Your task to perform on an android device: turn off notifications in google photos Image 0: 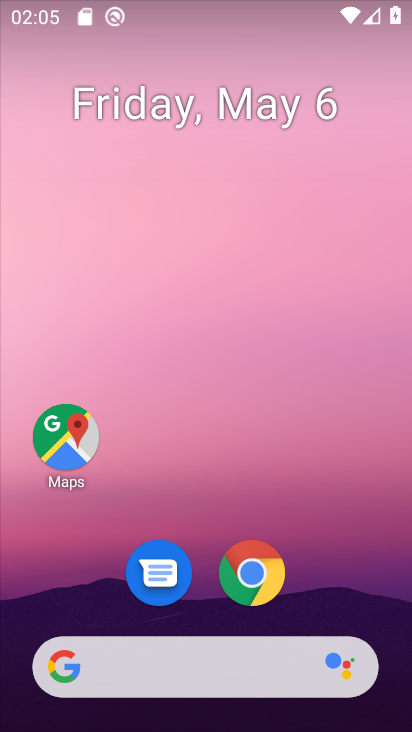
Step 0: click (316, 275)
Your task to perform on an android device: turn off notifications in google photos Image 1: 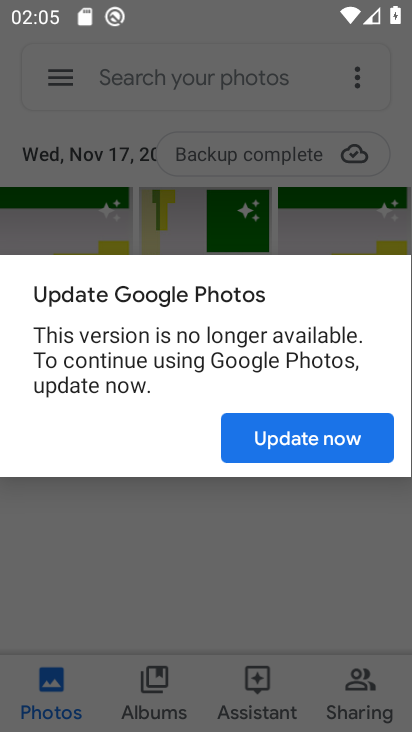
Step 1: press home button
Your task to perform on an android device: turn off notifications in google photos Image 2: 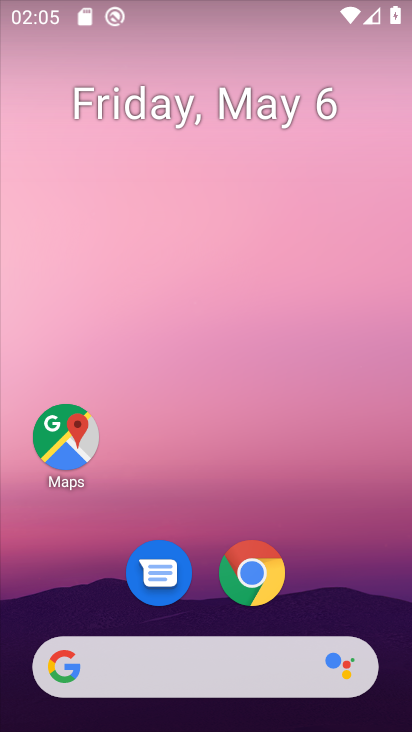
Step 2: drag from (313, 611) to (379, 243)
Your task to perform on an android device: turn off notifications in google photos Image 3: 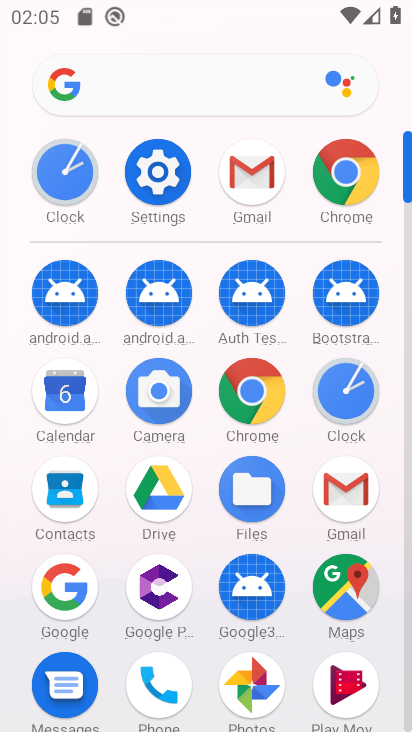
Step 3: click (254, 682)
Your task to perform on an android device: turn off notifications in google photos Image 4: 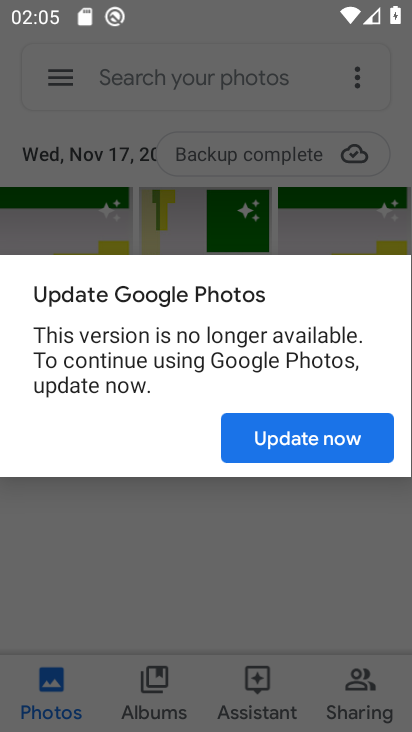
Step 4: click (309, 423)
Your task to perform on an android device: turn off notifications in google photos Image 5: 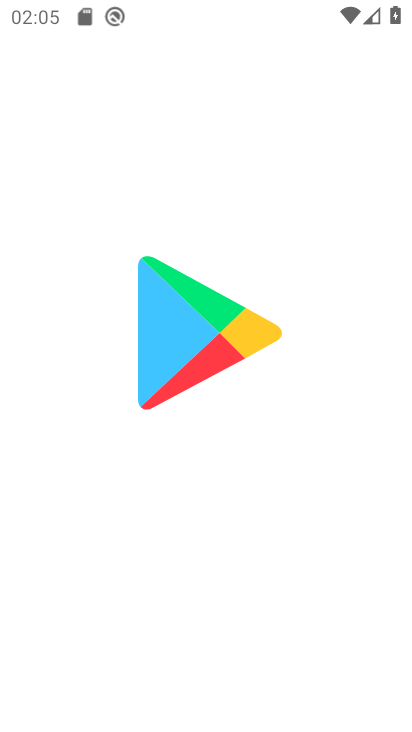
Step 5: press back button
Your task to perform on an android device: turn off notifications in google photos Image 6: 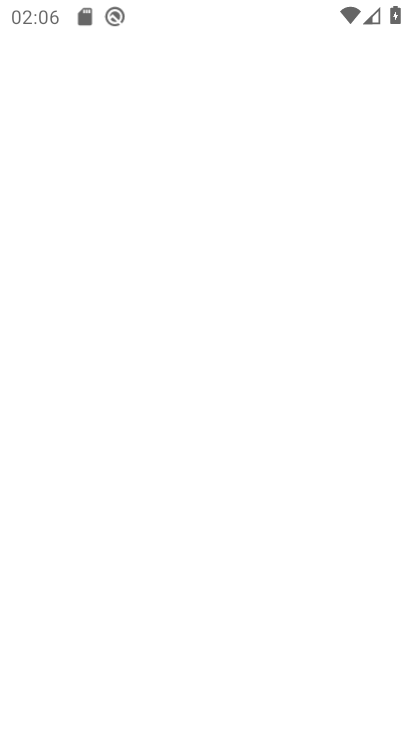
Step 6: press back button
Your task to perform on an android device: turn off notifications in google photos Image 7: 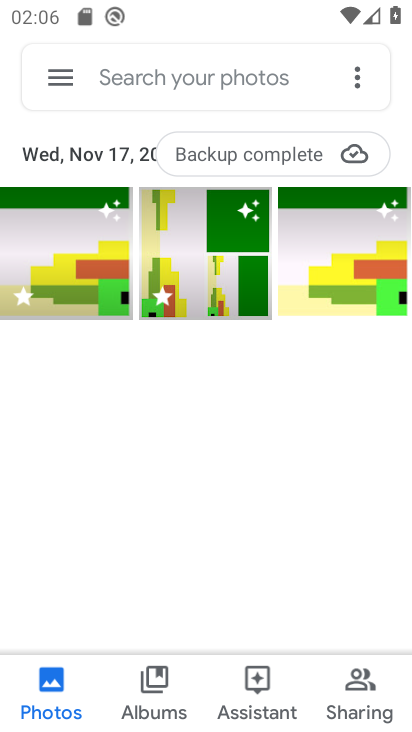
Step 7: click (60, 78)
Your task to perform on an android device: turn off notifications in google photos Image 8: 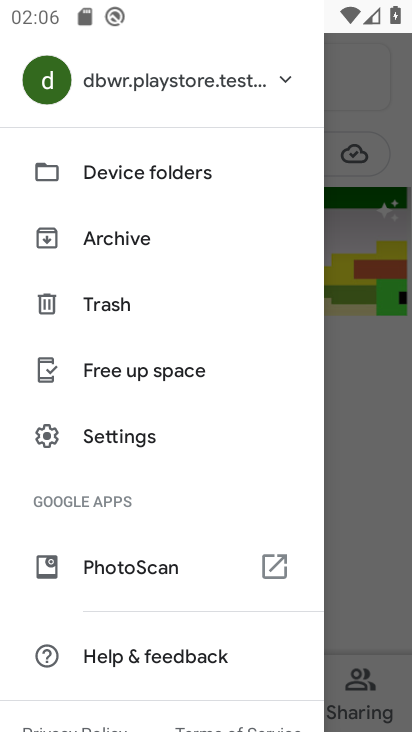
Step 8: click (153, 430)
Your task to perform on an android device: turn off notifications in google photos Image 9: 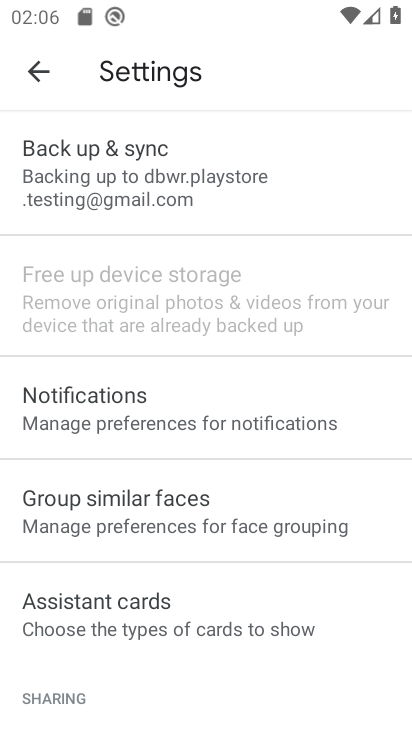
Step 9: click (131, 392)
Your task to perform on an android device: turn off notifications in google photos Image 10: 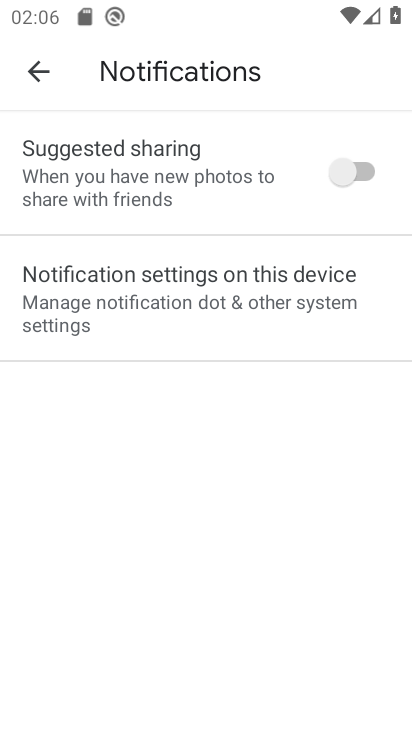
Step 10: click (179, 282)
Your task to perform on an android device: turn off notifications in google photos Image 11: 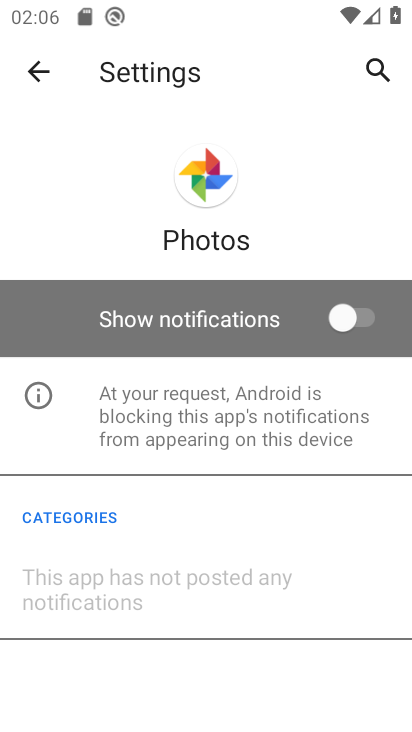
Step 11: task complete